Your task to perform on an android device: add a label to a message in the gmail app Image 0: 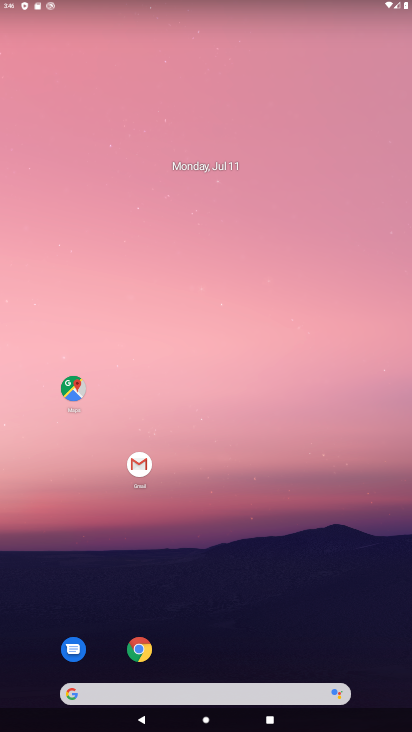
Step 0: click (142, 467)
Your task to perform on an android device: add a label to a message in the gmail app Image 1: 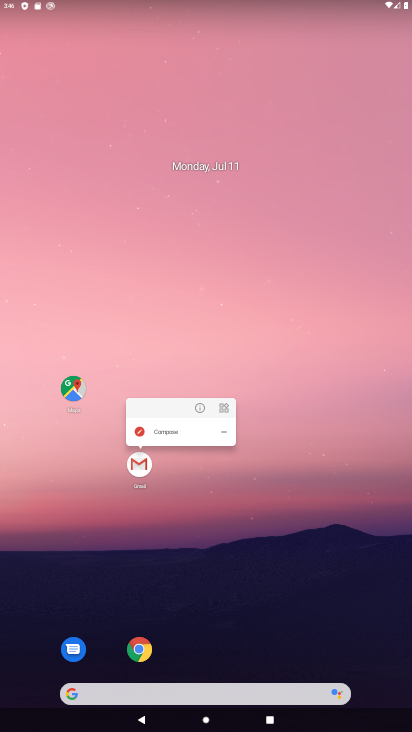
Step 1: click (142, 466)
Your task to perform on an android device: add a label to a message in the gmail app Image 2: 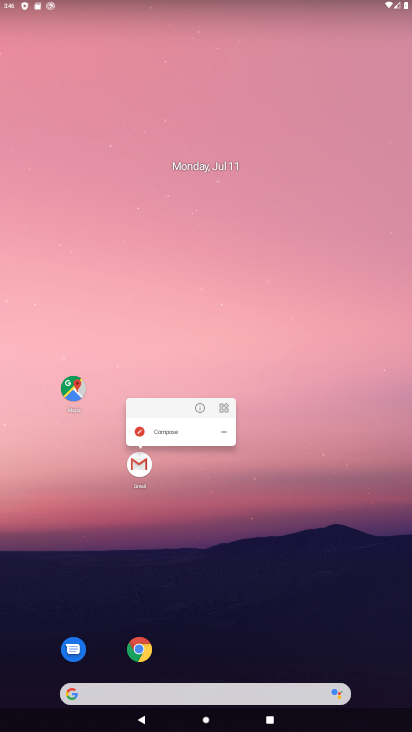
Step 2: click (145, 466)
Your task to perform on an android device: add a label to a message in the gmail app Image 3: 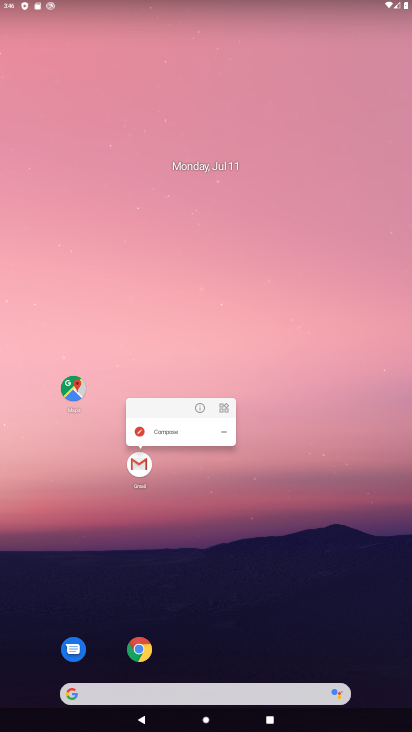
Step 3: click (126, 459)
Your task to perform on an android device: add a label to a message in the gmail app Image 4: 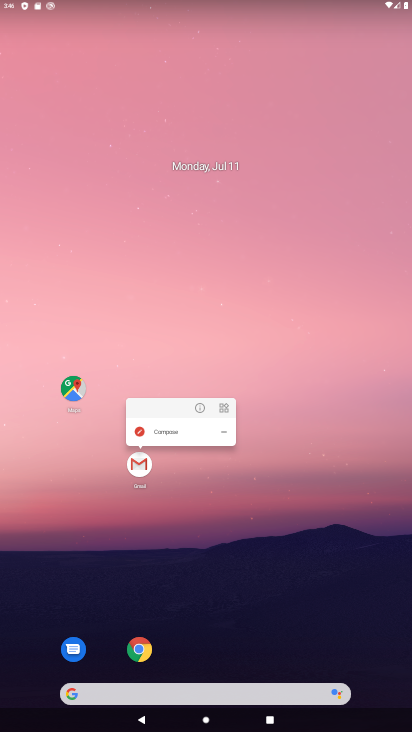
Step 4: click (142, 471)
Your task to perform on an android device: add a label to a message in the gmail app Image 5: 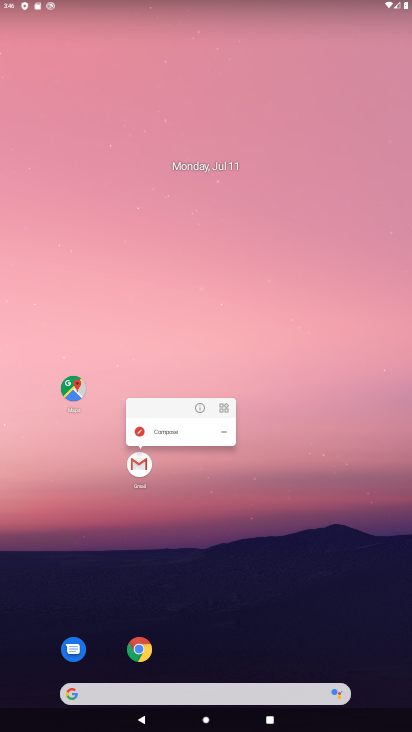
Step 5: click (136, 460)
Your task to perform on an android device: add a label to a message in the gmail app Image 6: 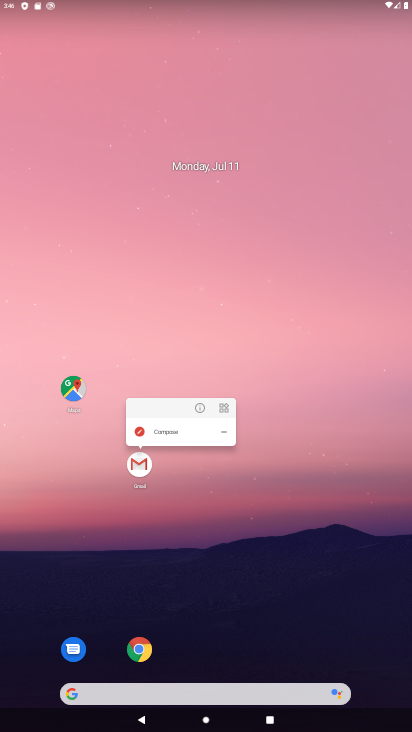
Step 6: click (152, 459)
Your task to perform on an android device: add a label to a message in the gmail app Image 7: 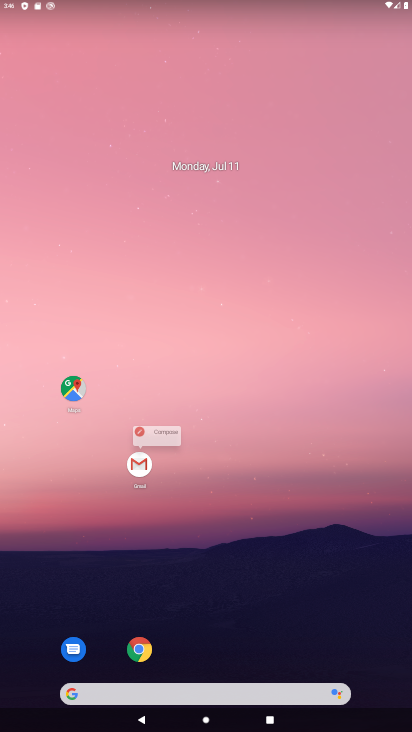
Step 7: click (138, 465)
Your task to perform on an android device: add a label to a message in the gmail app Image 8: 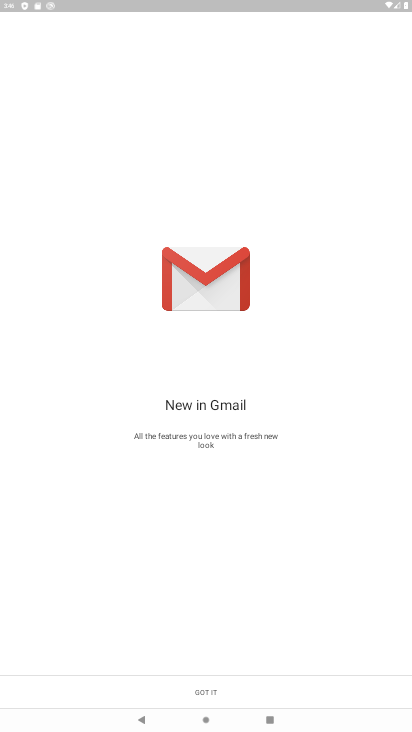
Step 8: click (202, 686)
Your task to perform on an android device: add a label to a message in the gmail app Image 9: 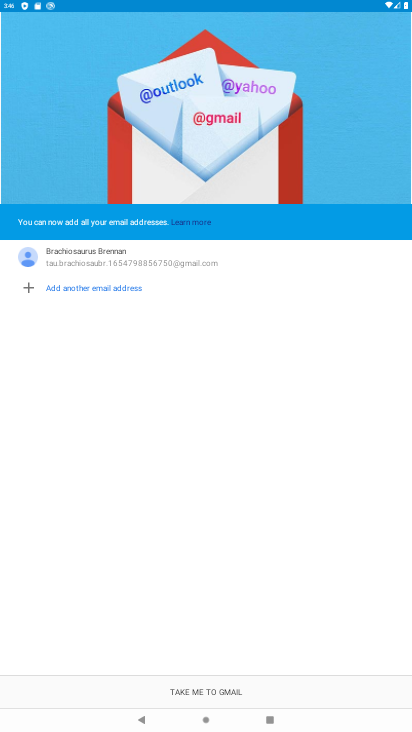
Step 9: click (197, 691)
Your task to perform on an android device: add a label to a message in the gmail app Image 10: 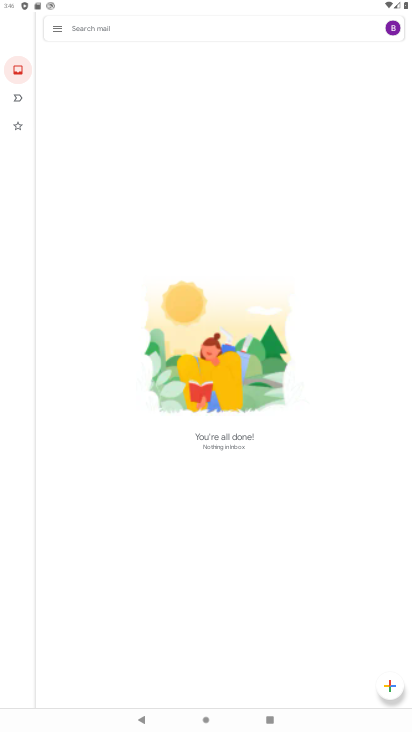
Step 10: task complete